Your task to perform on an android device: open a bookmark in the chrome app Image 0: 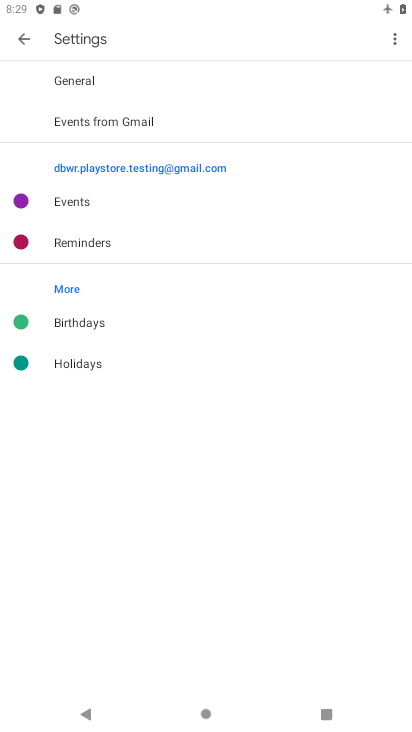
Step 0: press back button
Your task to perform on an android device: open a bookmark in the chrome app Image 1: 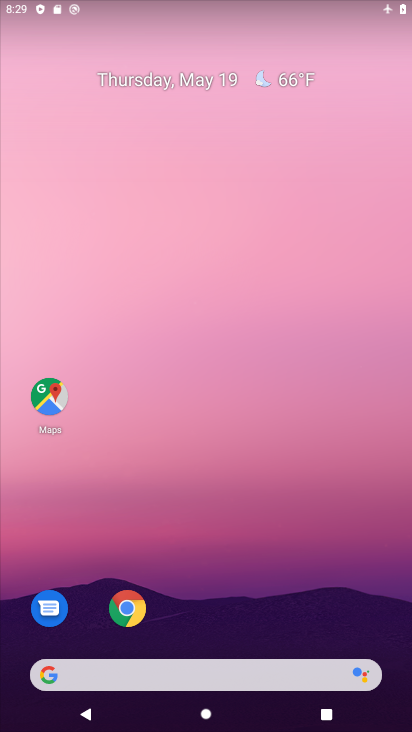
Step 1: drag from (317, 633) to (124, 115)
Your task to perform on an android device: open a bookmark in the chrome app Image 2: 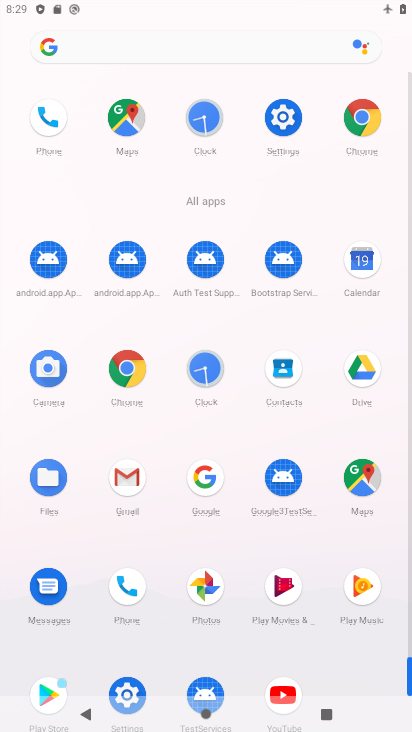
Step 2: click (359, 119)
Your task to perform on an android device: open a bookmark in the chrome app Image 3: 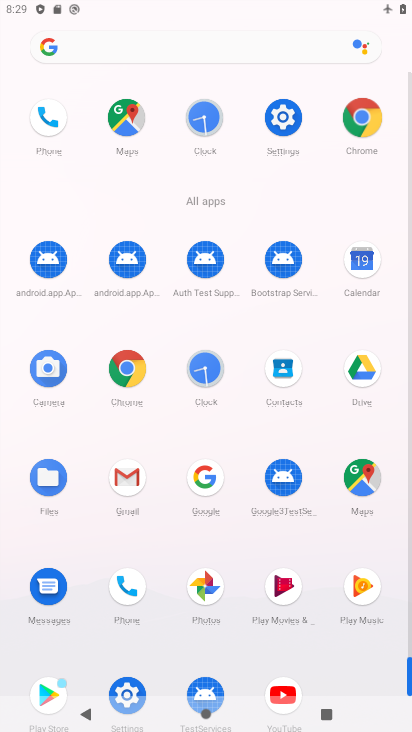
Step 3: click (359, 119)
Your task to perform on an android device: open a bookmark in the chrome app Image 4: 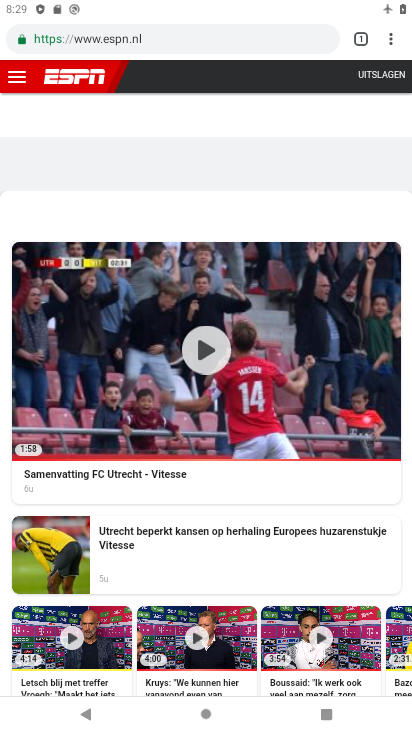
Step 4: press back button
Your task to perform on an android device: open a bookmark in the chrome app Image 5: 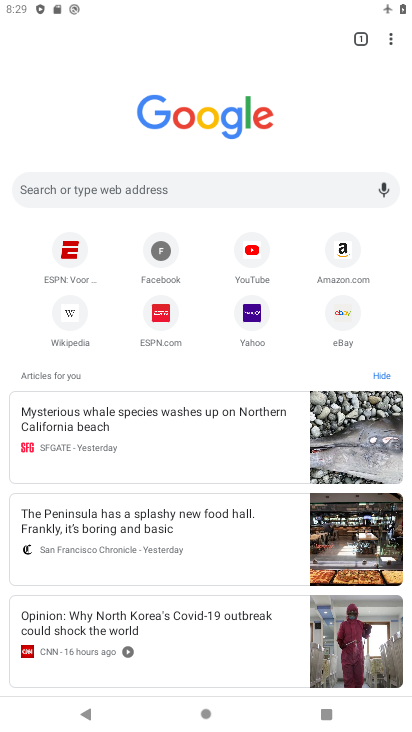
Step 5: drag from (388, 40) to (262, 143)
Your task to perform on an android device: open a bookmark in the chrome app Image 6: 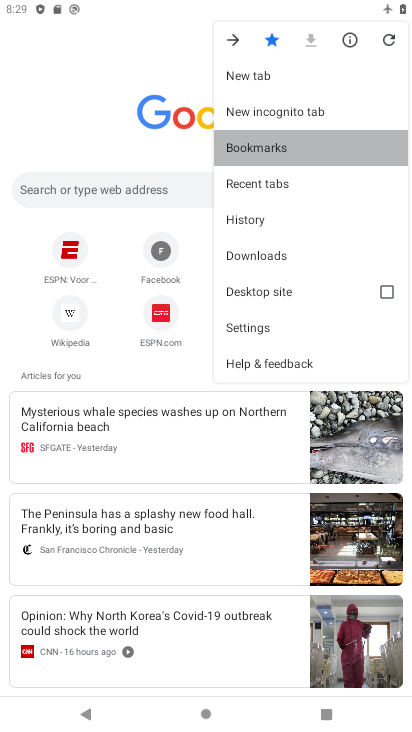
Step 6: click (262, 143)
Your task to perform on an android device: open a bookmark in the chrome app Image 7: 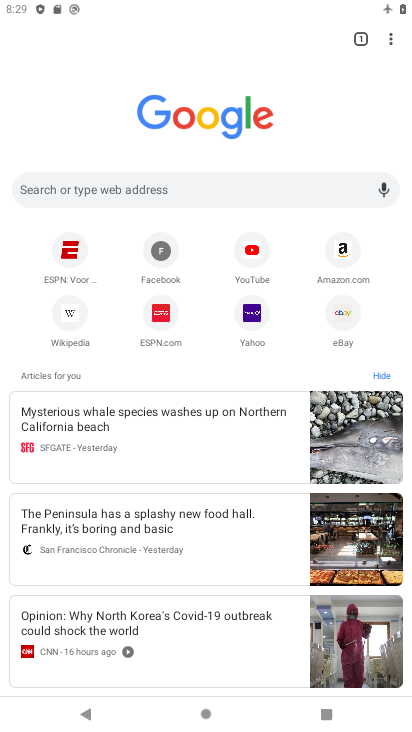
Step 7: click (262, 143)
Your task to perform on an android device: open a bookmark in the chrome app Image 8: 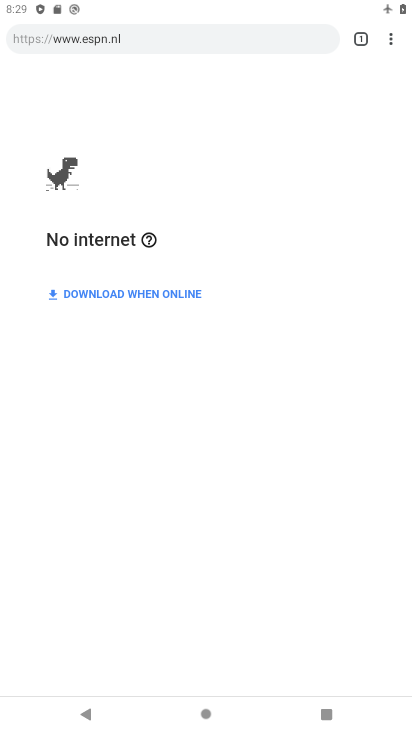
Step 8: task complete